Your task to perform on an android device: Open notification settings Image 0: 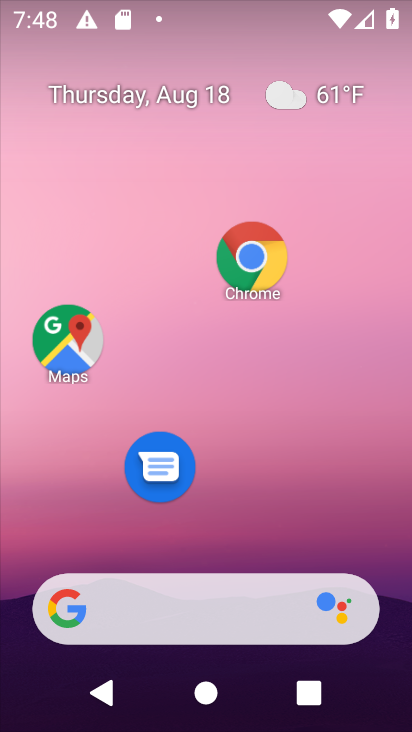
Step 0: drag from (295, 492) to (341, 113)
Your task to perform on an android device: Open notification settings Image 1: 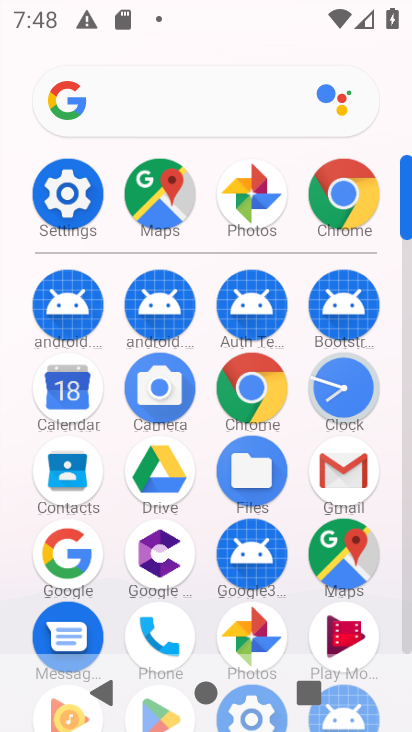
Step 1: click (77, 190)
Your task to perform on an android device: Open notification settings Image 2: 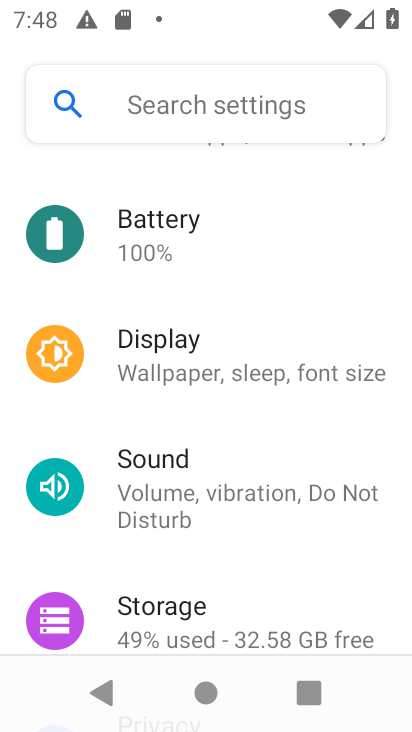
Step 2: task complete